Your task to perform on an android device: empty trash in google photos Image 0: 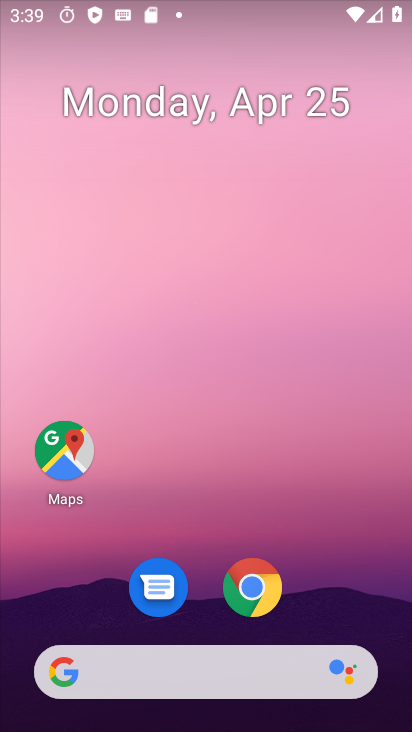
Step 0: drag from (343, 505) to (386, 144)
Your task to perform on an android device: empty trash in google photos Image 1: 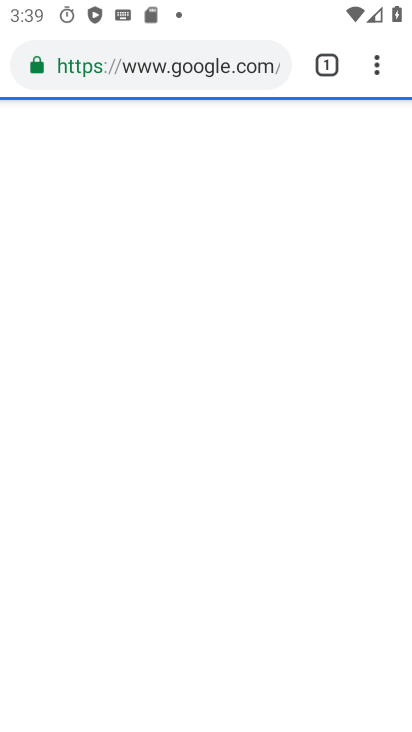
Step 1: press home button
Your task to perform on an android device: empty trash in google photos Image 2: 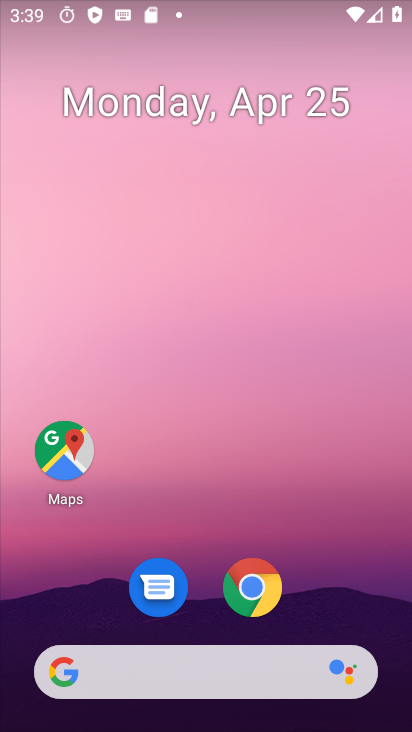
Step 2: drag from (351, 608) to (283, 192)
Your task to perform on an android device: empty trash in google photos Image 3: 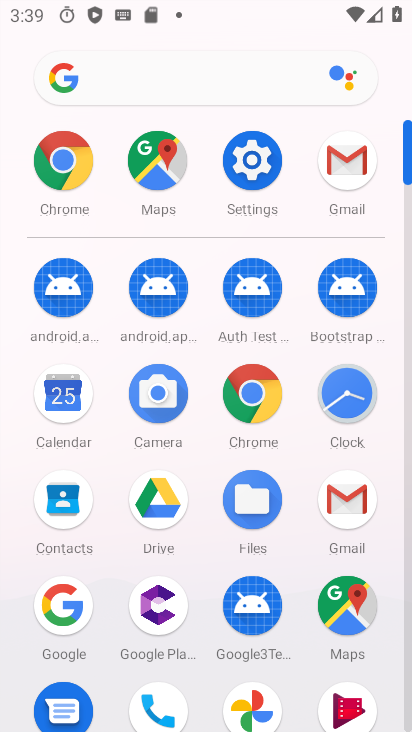
Step 3: drag from (303, 497) to (334, 134)
Your task to perform on an android device: empty trash in google photos Image 4: 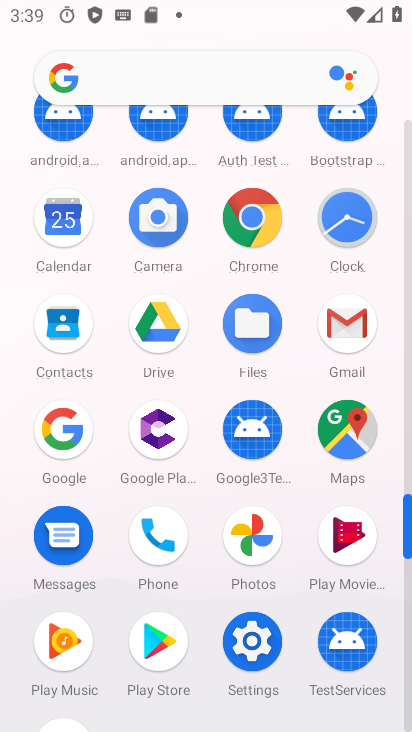
Step 4: click (244, 549)
Your task to perform on an android device: empty trash in google photos Image 5: 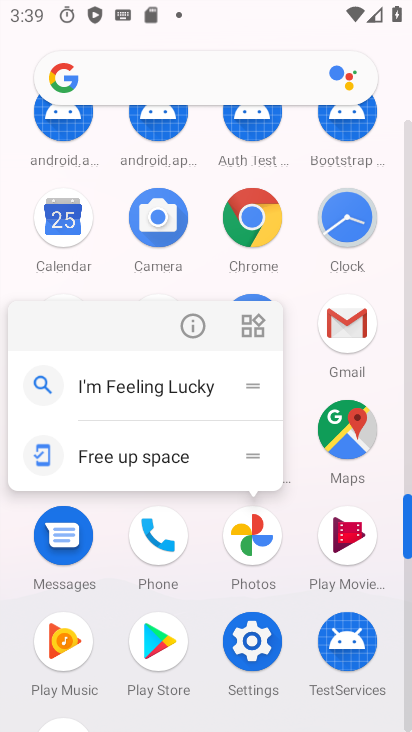
Step 5: click (255, 529)
Your task to perform on an android device: empty trash in google photos Image 6: 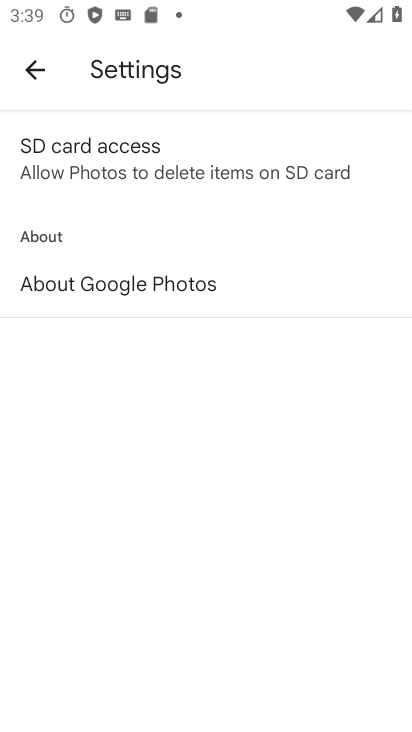
Step 6: click (37, 71)
Your task to perform on an android device: empty trash in google photos Image 7: 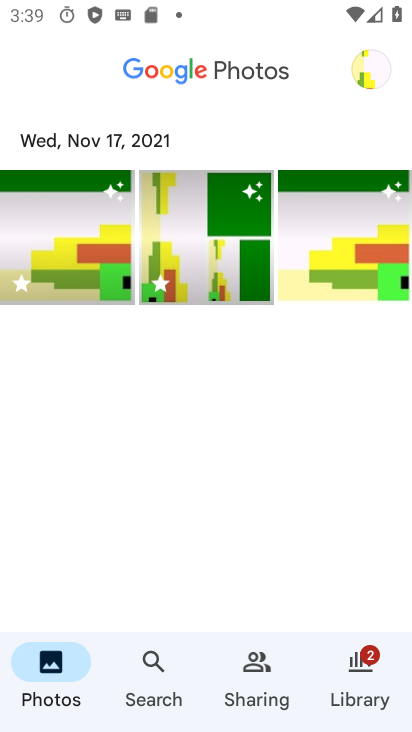
Step 7: click (364, 66)
Your task to perform on an android device: empty trash in google photos Image 8: 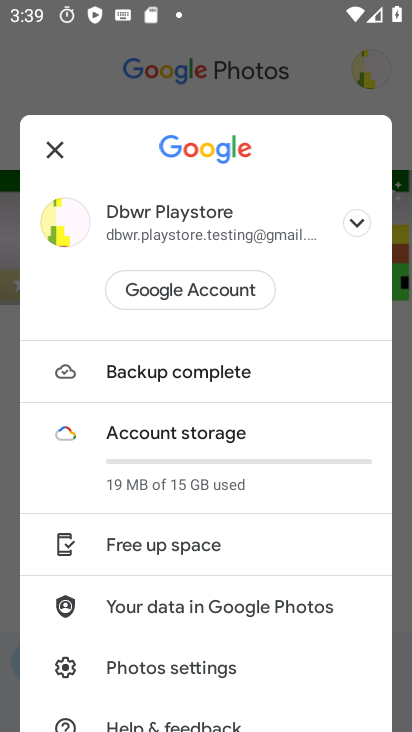
Step 8: drag from (152, 558) to (236, 152)
Your task to perform on an android device: empty trash in google photos Image 9: 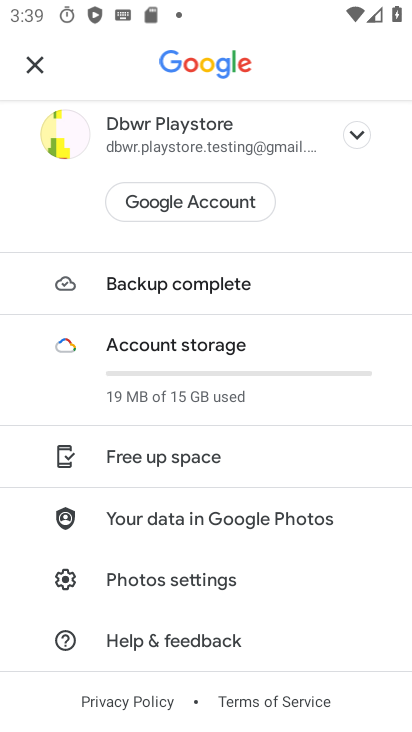
Step 9: drag from (229, 577) to (265, 190)
Your task to perform on an android device: empty trash in google photos Image 10: 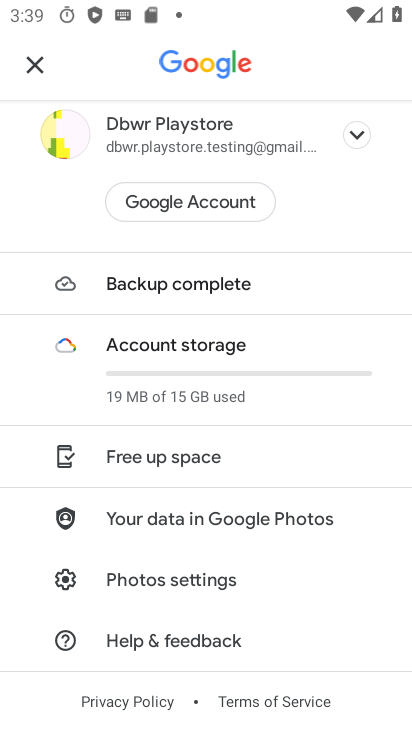
Step 10: click (169, 458)
Your task to perform on an android device: empty trash in google photos Image 11: 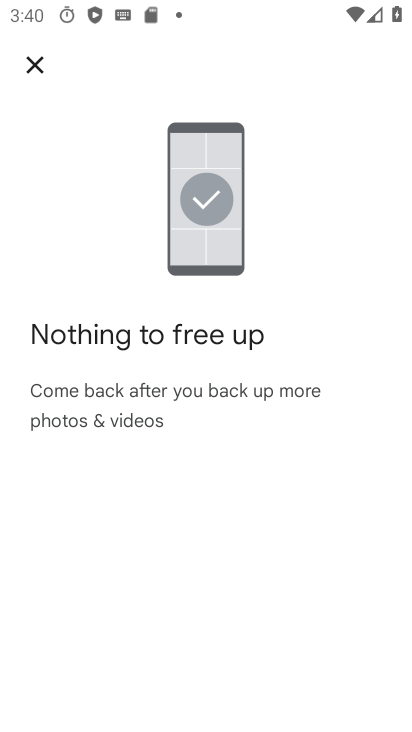
Step 11: task complete